Your task to perform on an android device: Open Google Chrome and open the bookmarks view Image 0: 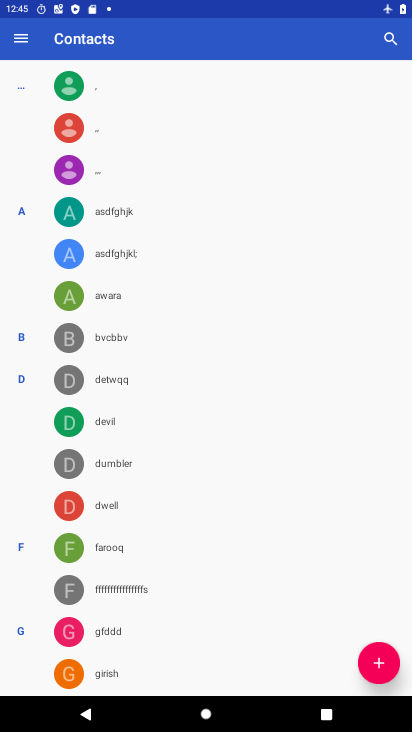
Step 0: press home button
Your task to perform on an android device: Open Google Chrome and open the bookmarks view Image 1: 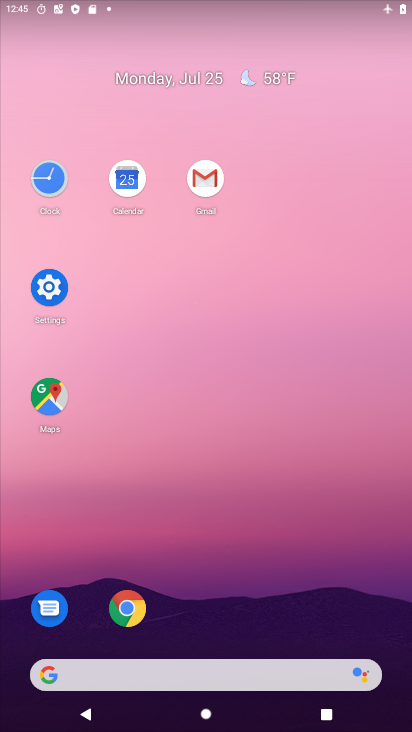
Step 1: click (134, 600)
Your task to perform on an android device: Open Google Chrome and open the bookmarks view Image 2: 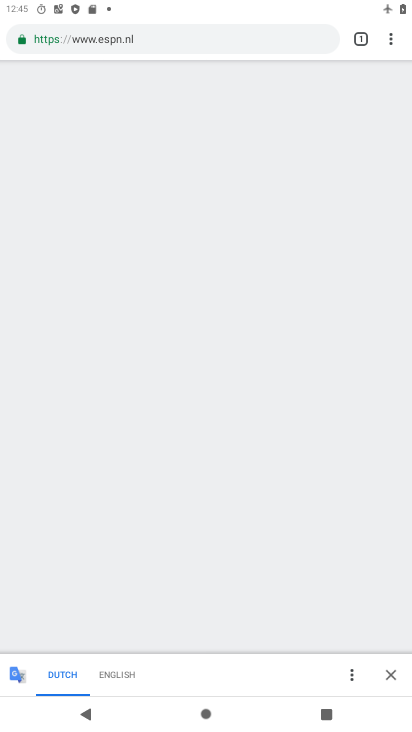
Step 2: click (398, 44)
Your task to perform on an android device: Open Google Chrome and open the bookmarks view Image 3: 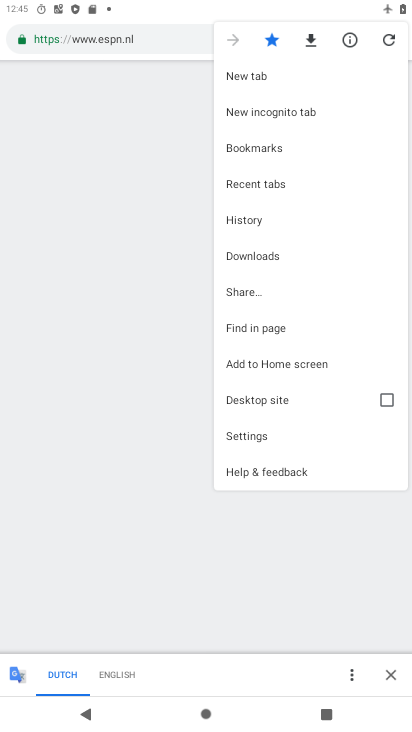
Step 3: click (247, 148)
Your task to perform on an android device: Open Google Chrome and open the bookmarks view Image 4: 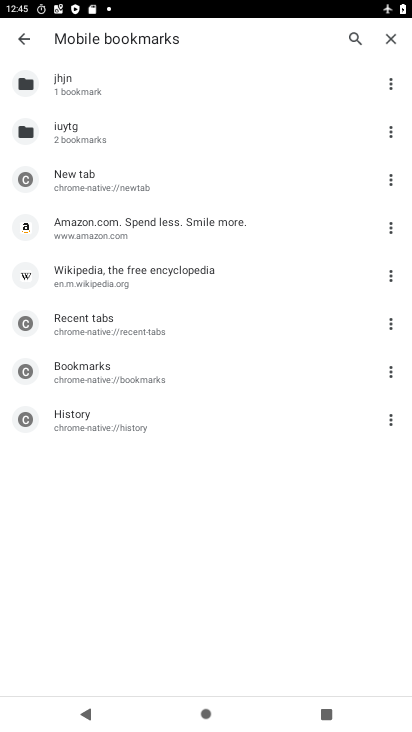
Step 4: task complete